Your task to perform on an android device: open app "Firefox Browser" (install if not already installed) Image 0: 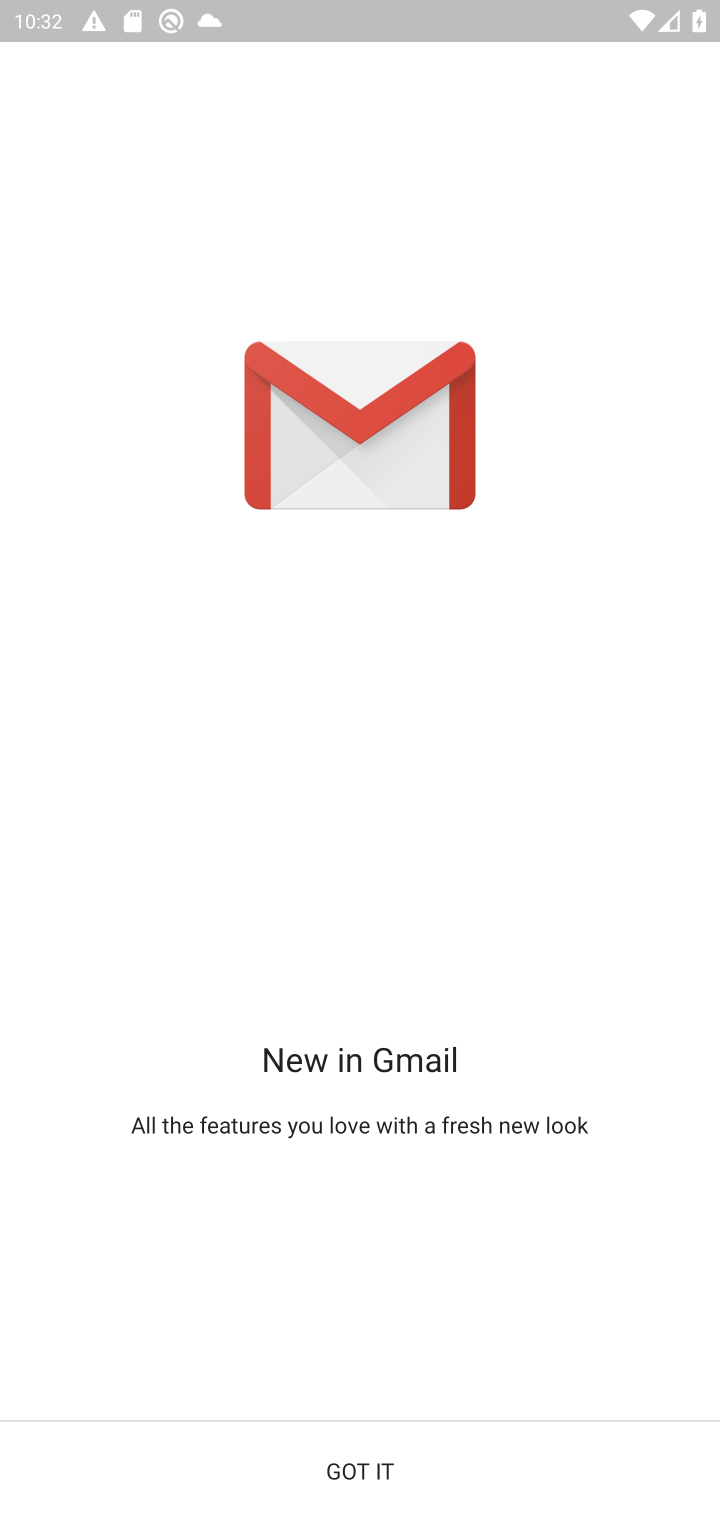
Step 0: drag from (591, 1237) to (582, 149)
Your task to perform on an android device: open app "Firefox Browser" (install if not already installed) Image 1: 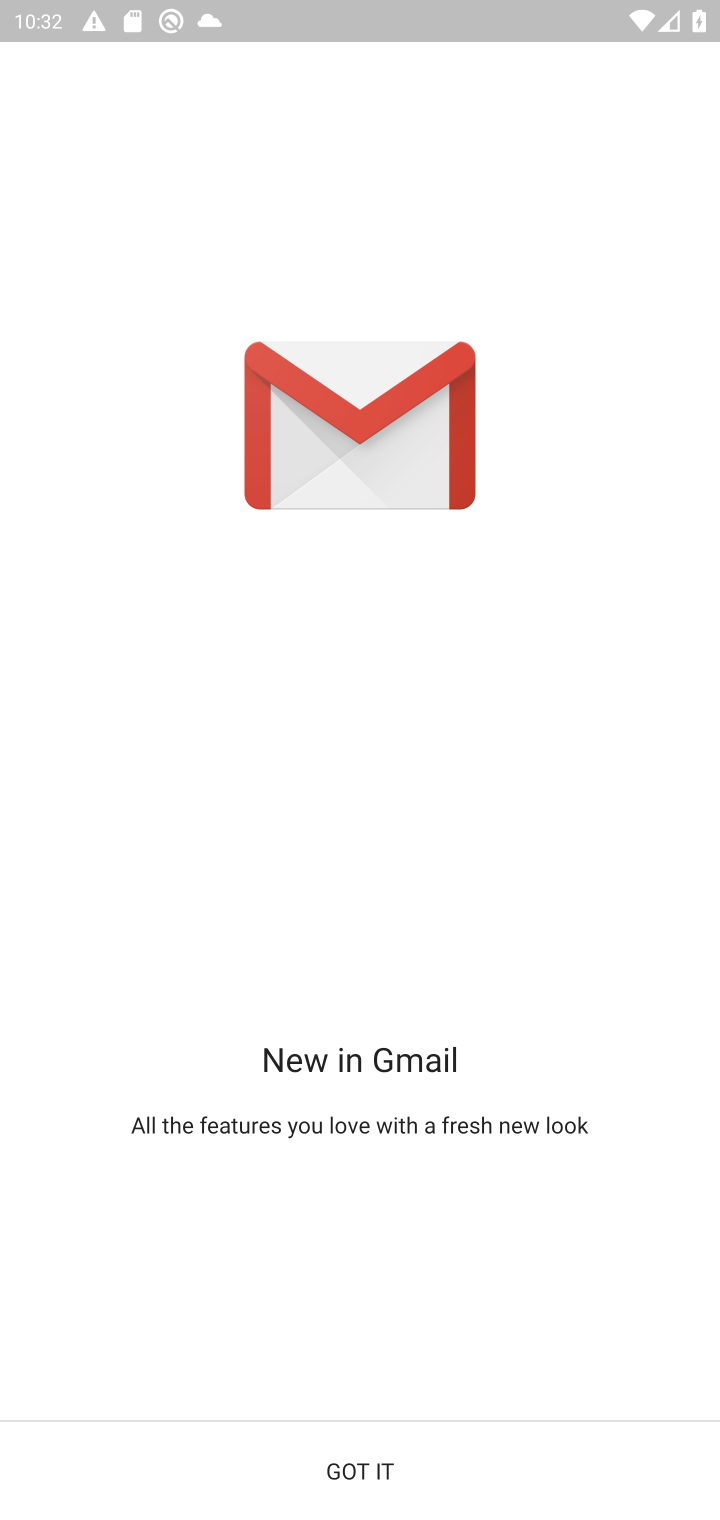
Step 1: press home button
Your task to perform on an android device: open app "Firefox Browser" (install if not already installed) Image 2: 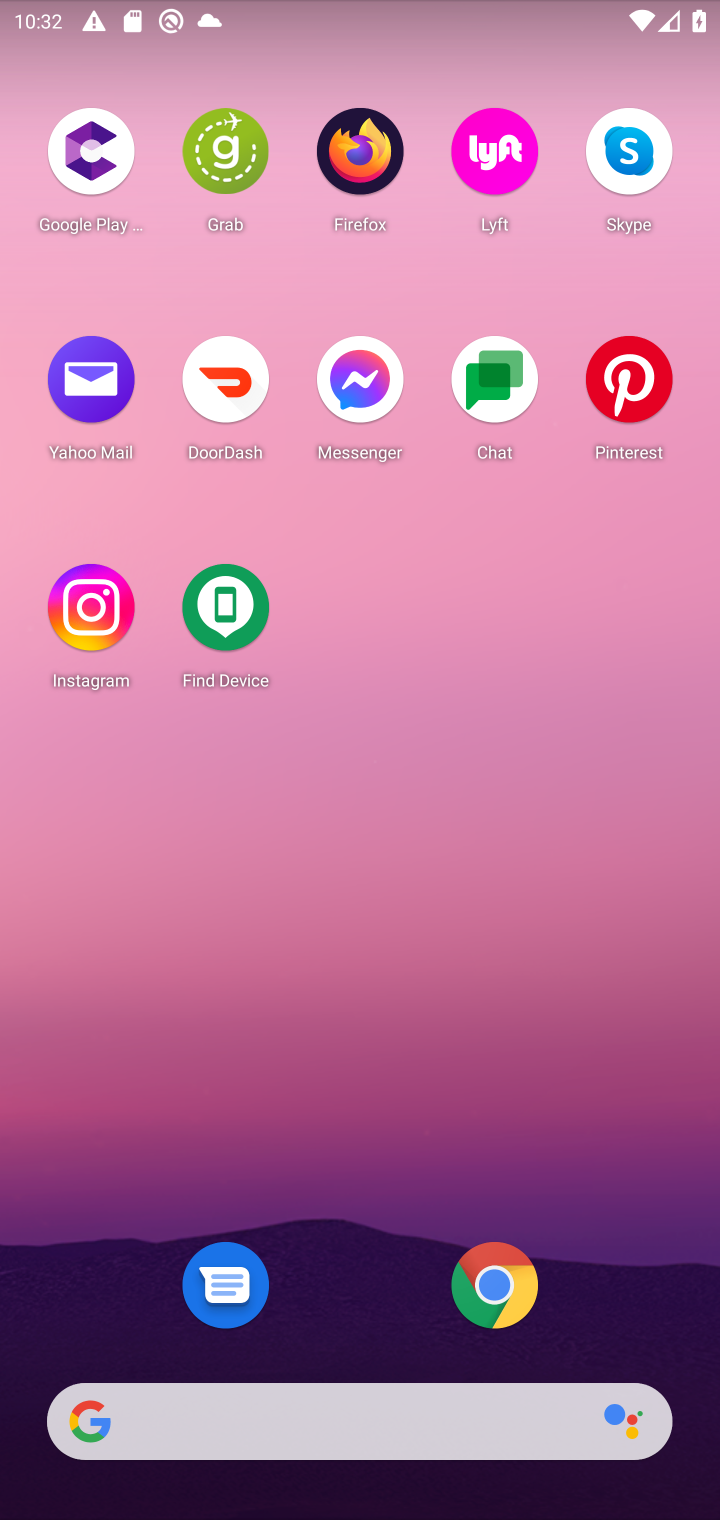
Step 2: drag from (596, 1317) to (548, 354)
Your task to perform on an android device: open app "Firefox Browser" (install if not already installed) Image 3: 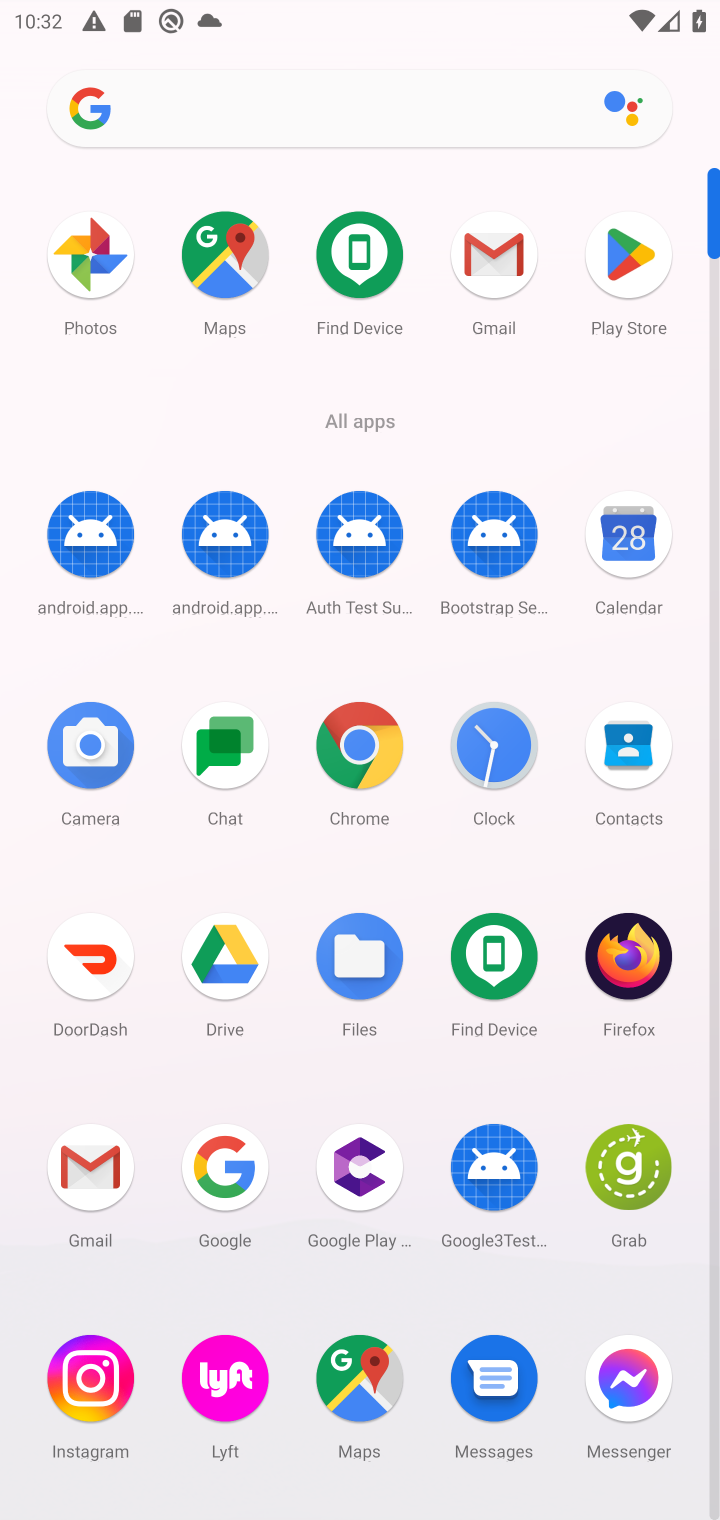
Step 3: click (626, 236)
Your task to perform on an android device: open app "Firefox Browser" (install if not already installed) Image 4: 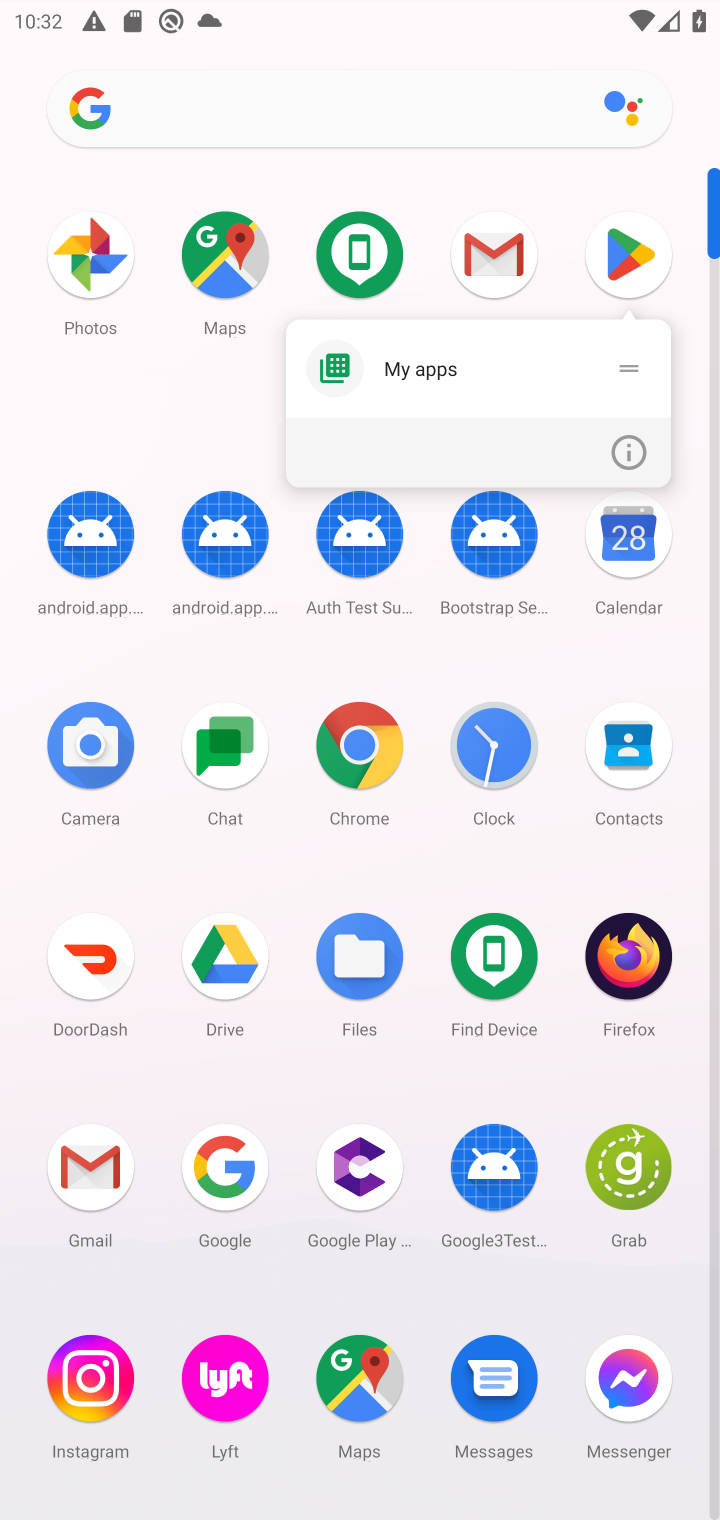
Step 4: click (619, 262)
Your task to perform on an android device: open app "Firefox Browser" (install if not already installed) Image 5: 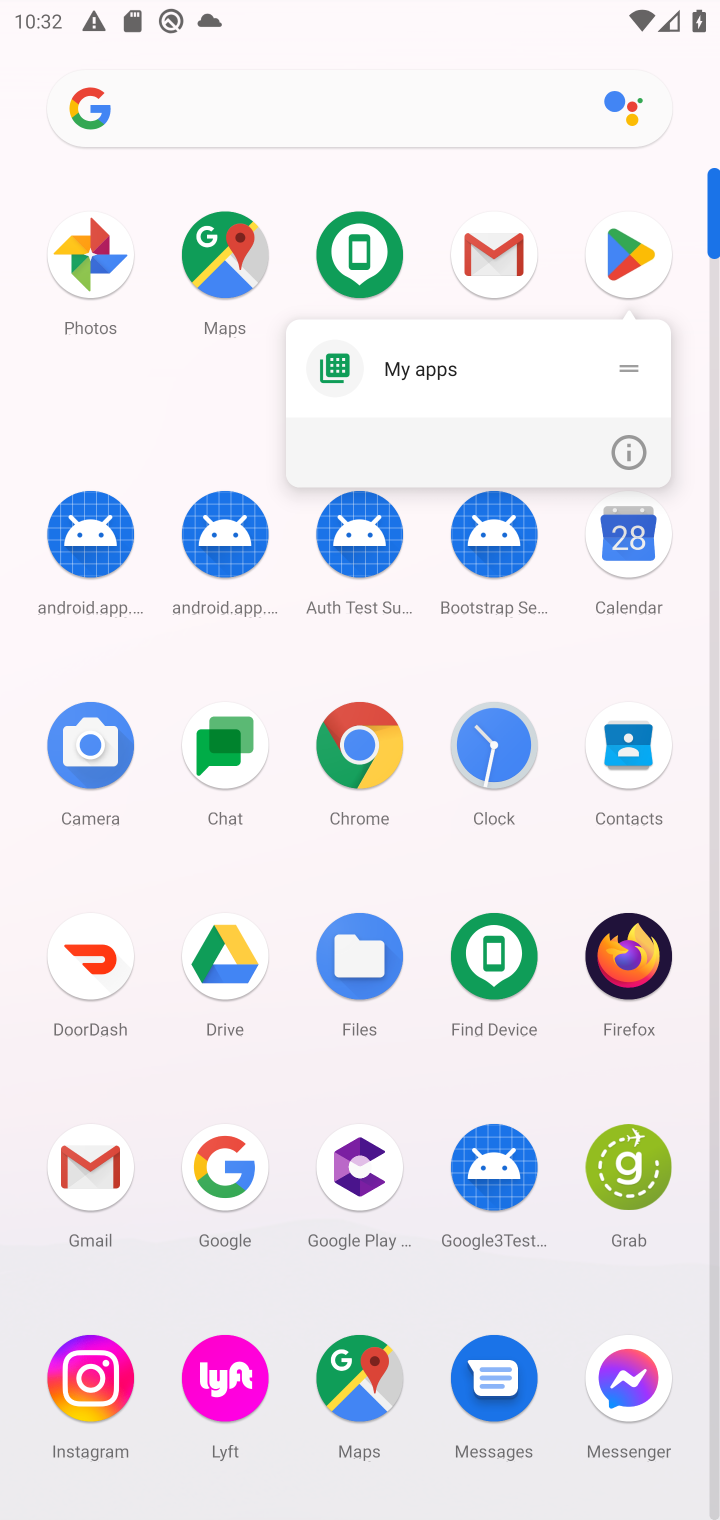
Step 5: click (637, 257)
Your task to perform on an android device: open app "Firefox Browser" (install if not already installed) Image 6: 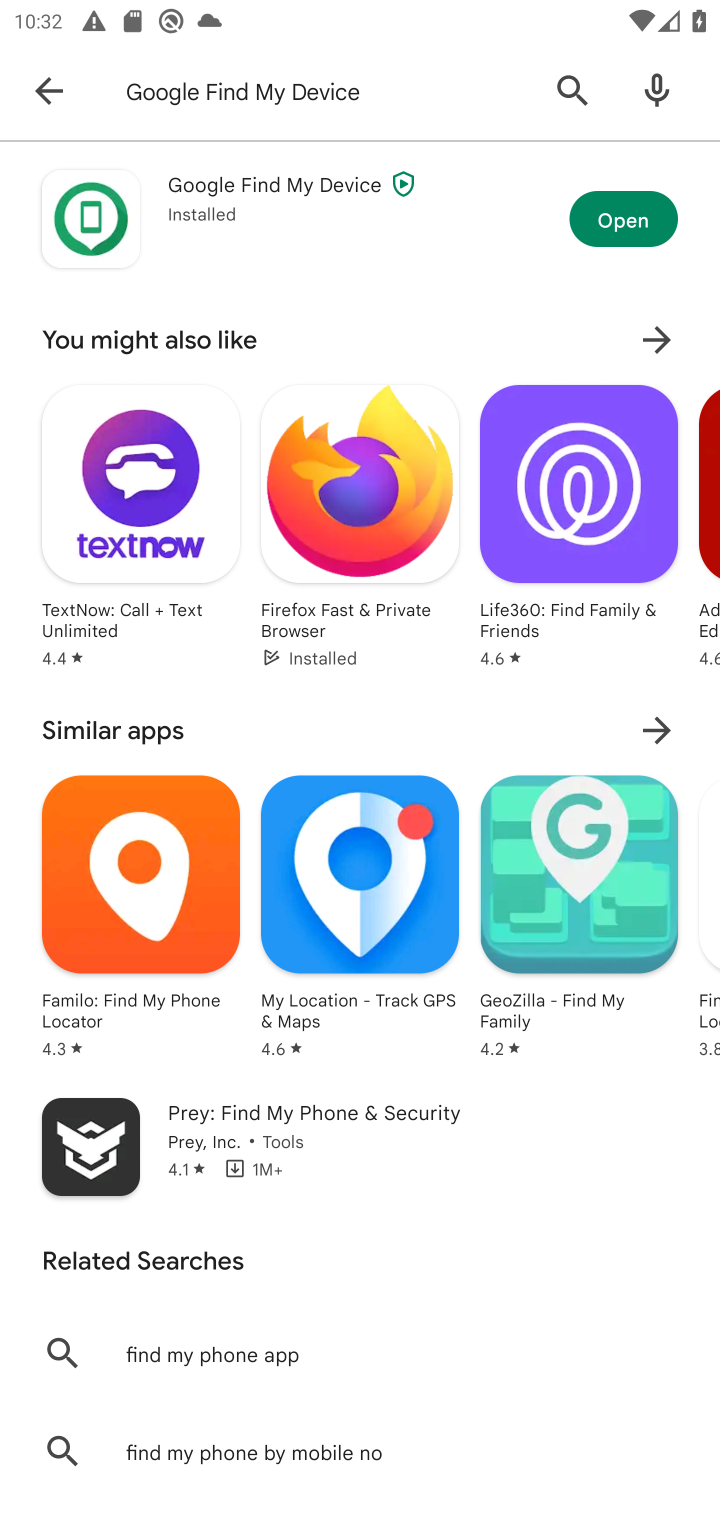
Step 6: click (341, 87)
Your task to perform on an android device: open app "Firefox Browser" (install if not already installed) Image 7: 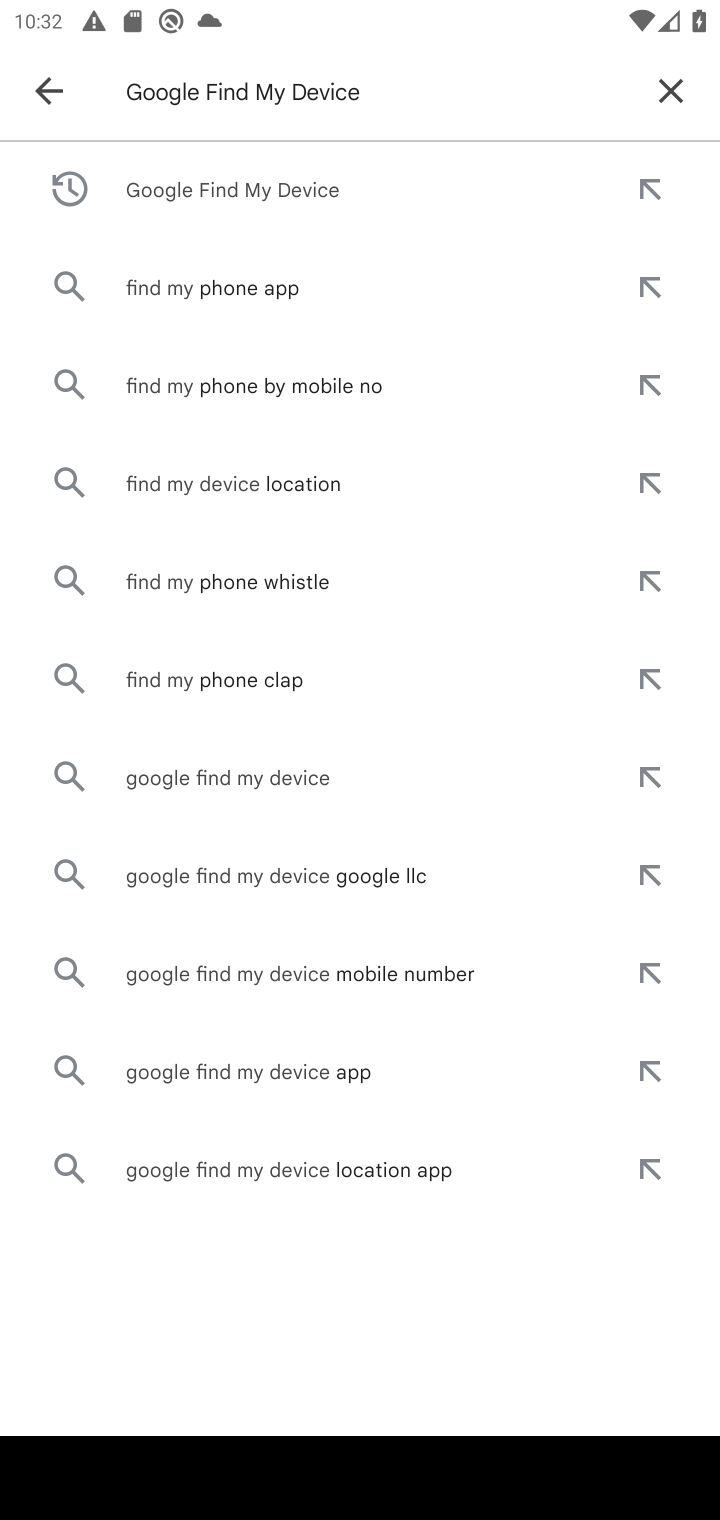
Step 7: click (677, 87)
Your task to perform on an android device: open app "Firefox Browser" (install if not already installed) Image 8: 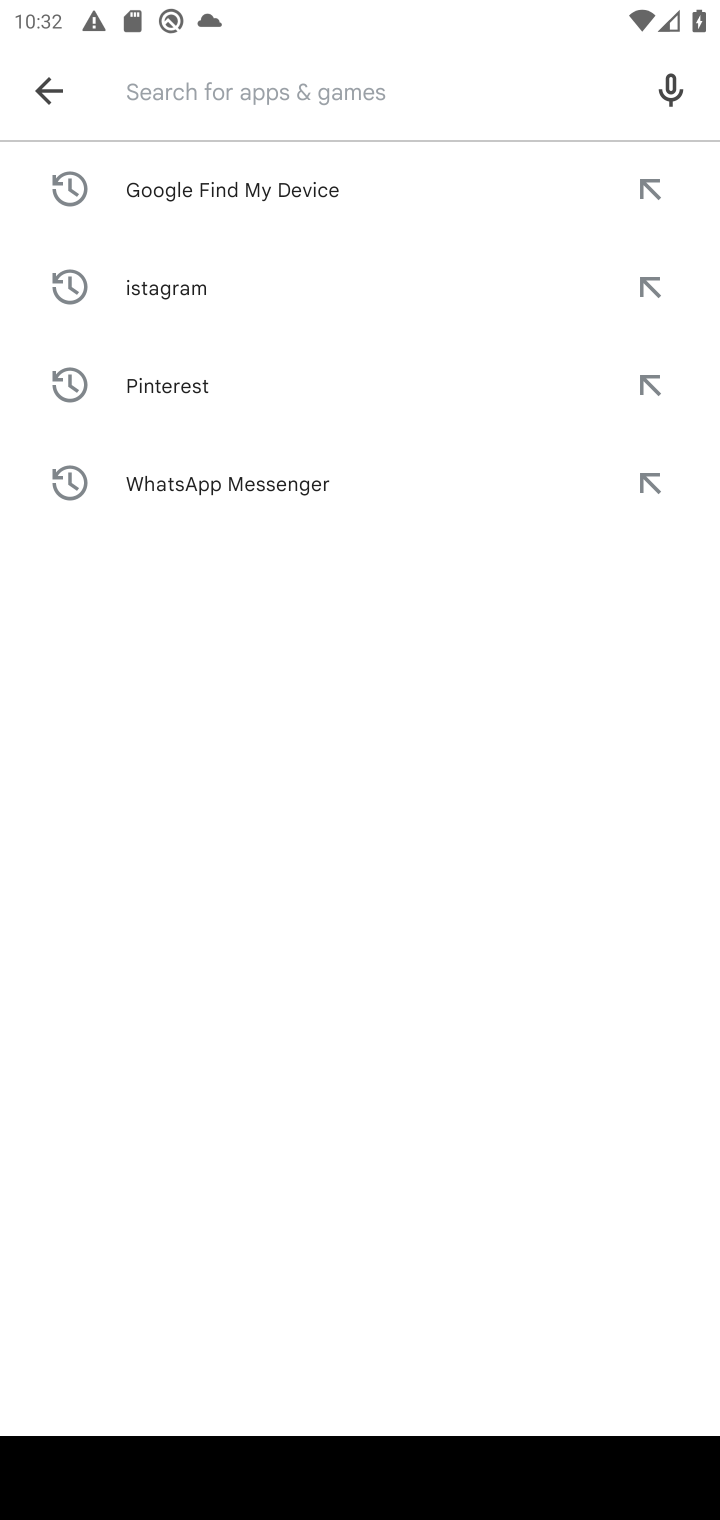
Step 8: type "Firefox Browser"
Your task to perform on an android device: open app "Firefox Browser" (install if not already installed) Image 9: 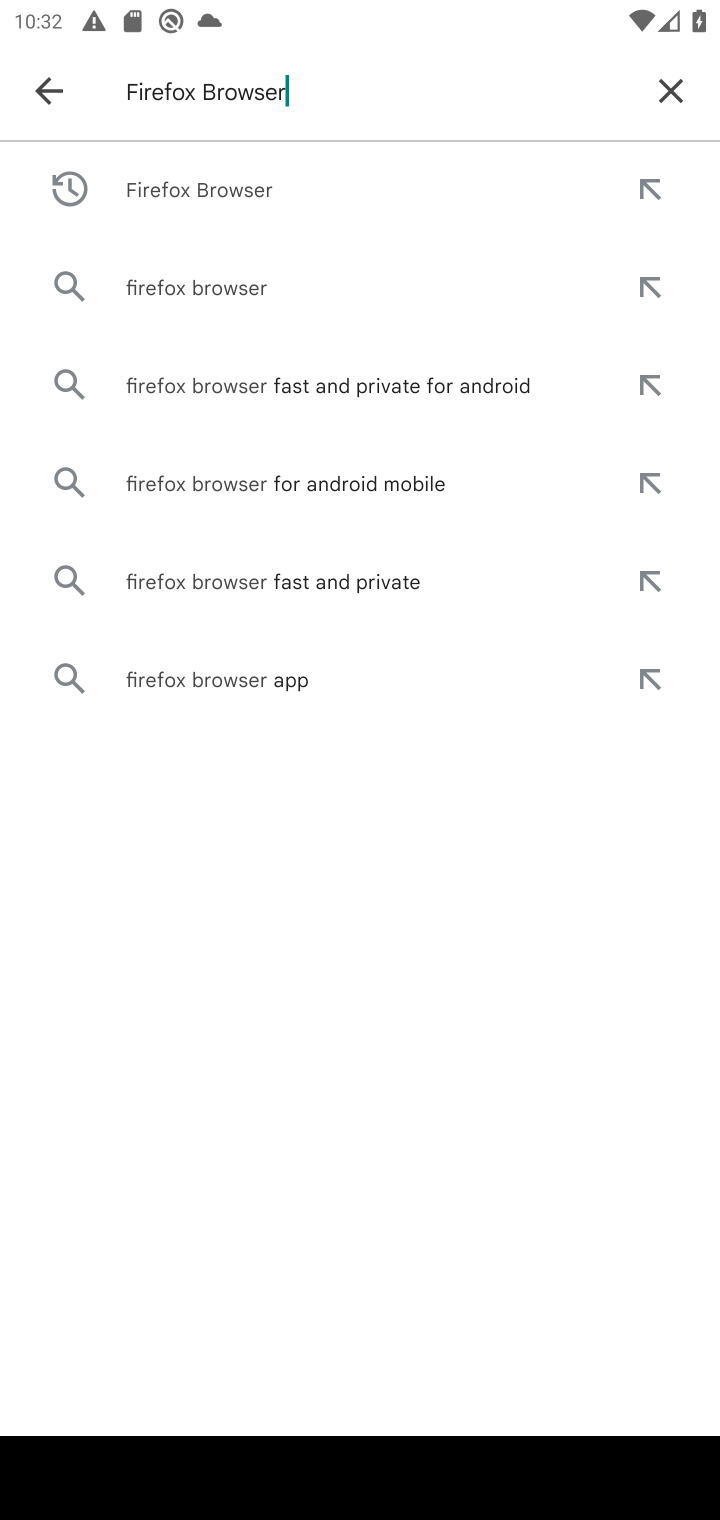
Step 9: press enter
Your task to perform on an android device: open app "Firefox Browser" (install if not already installed) Image 10: 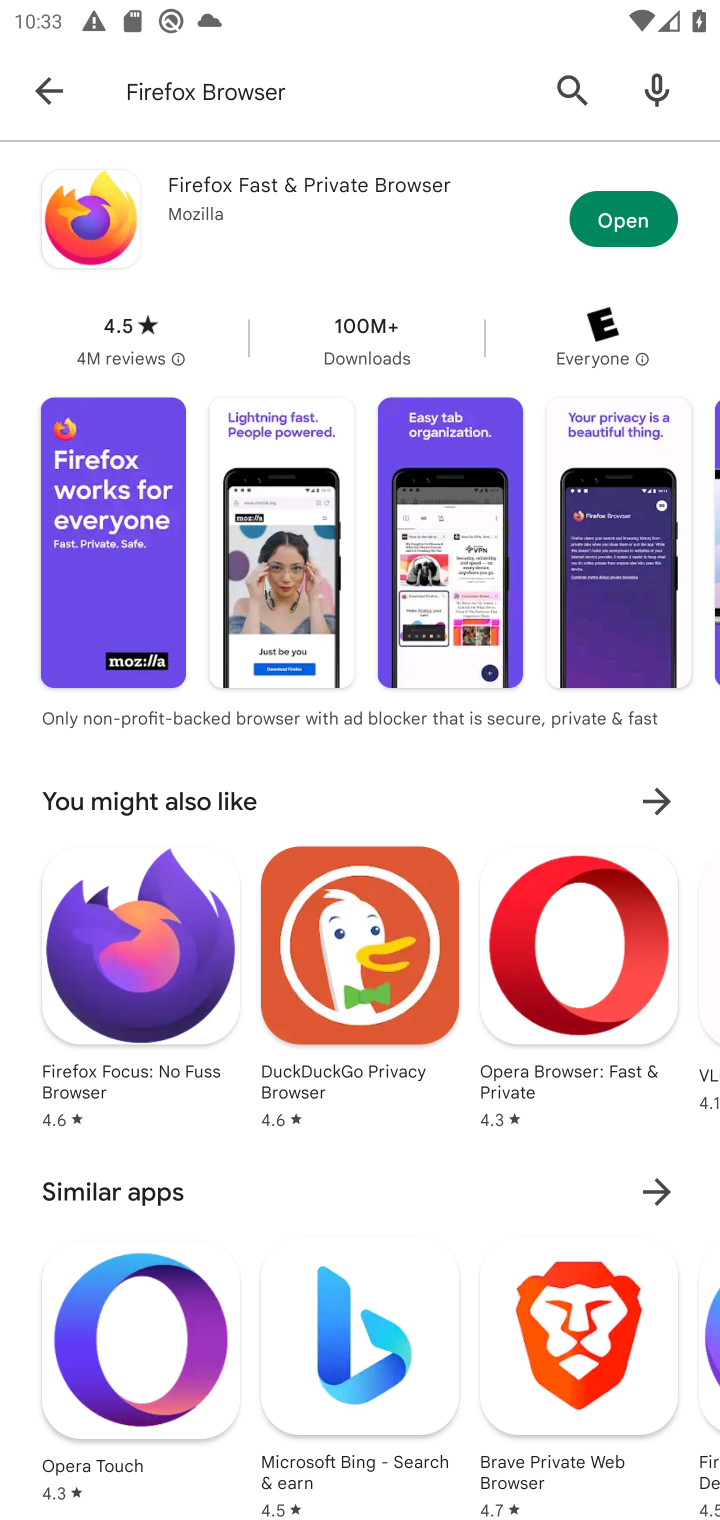
Step 10: click (633, 228)
Your task to perform on an android device: open app "Firefox Browser" (install if not already installed) Image 11: 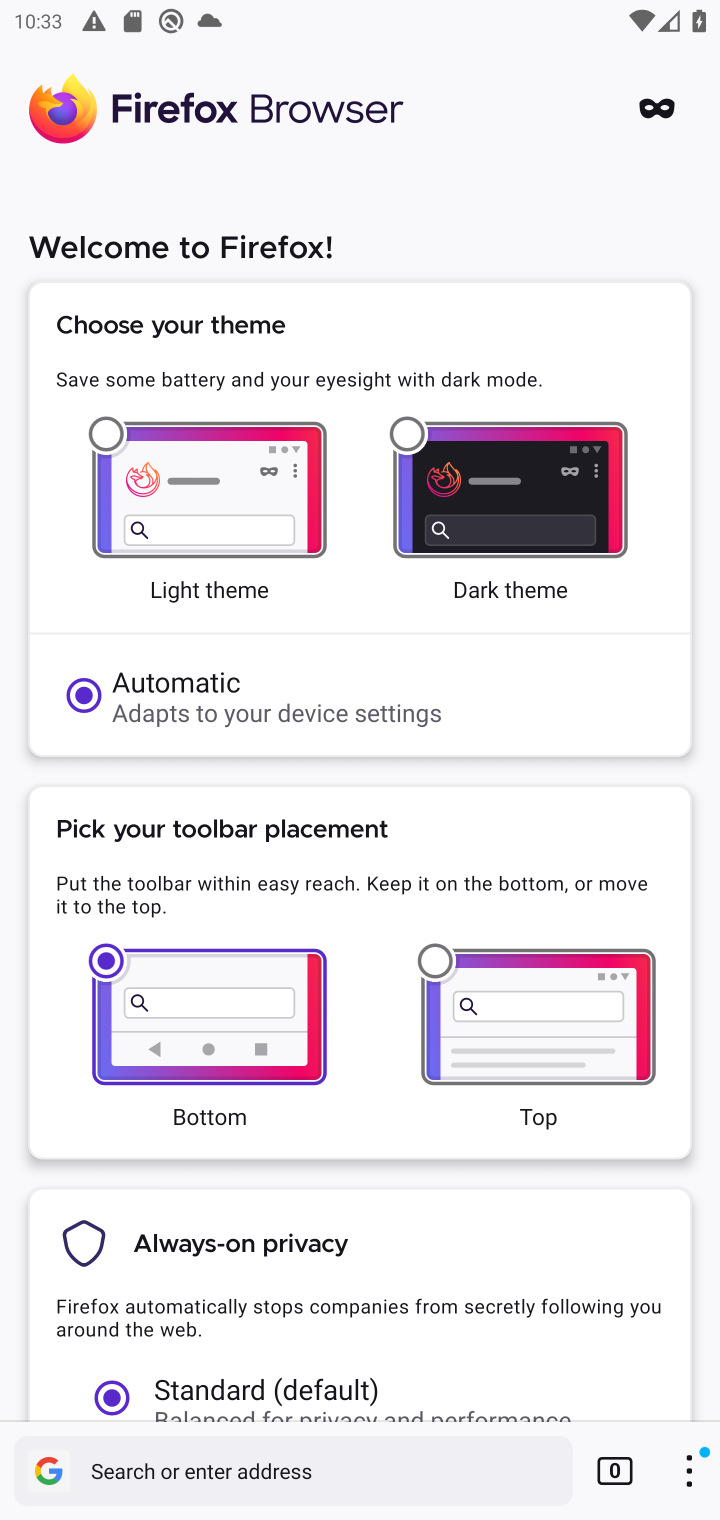
Step 11: task complete